Your task to perform on an android device: Go to settings Image 0: 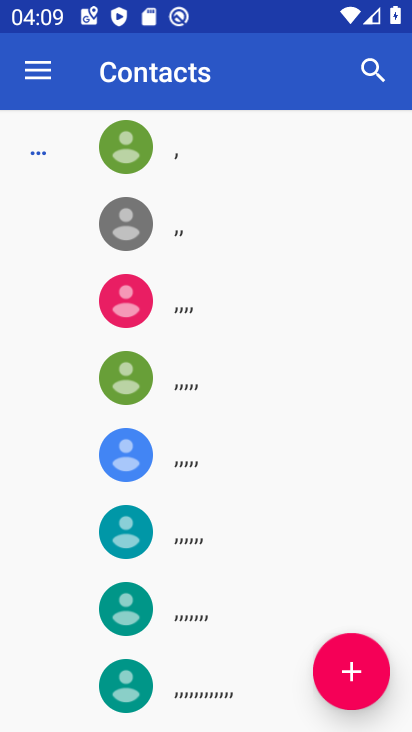
Step 0: press back button
Your task to perform on an android device: Go to settings Image 1: 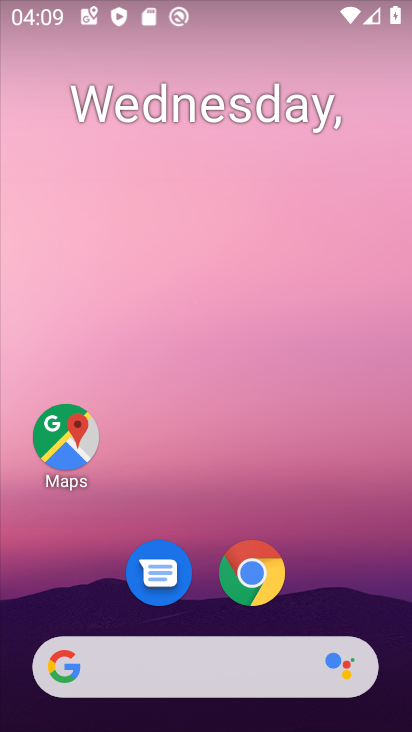
Step 1: drag from (323, 552) to (282, 141)
Your task to perform on an android device: Go to settings Image 2: 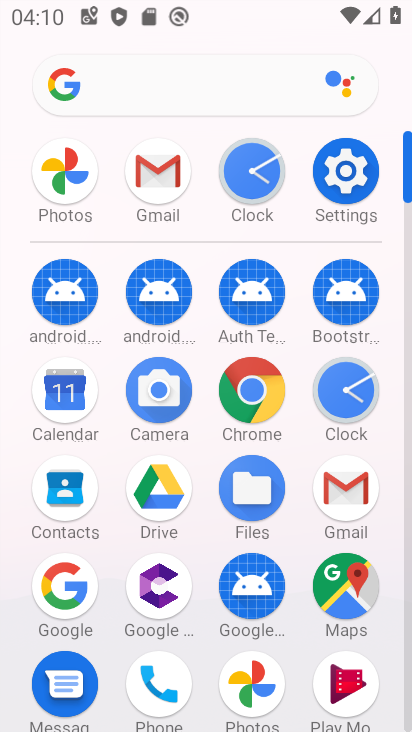
Step 2: click (343, 173)
Your task to perform on an android device: Go to settings Image 3: 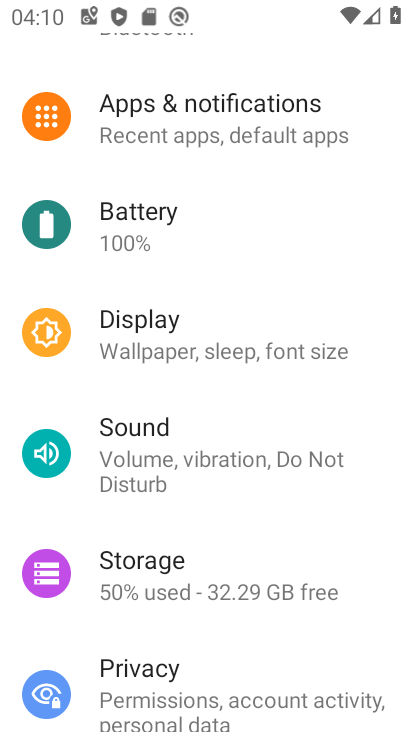
Step 3: task complete